Your task to perform on an android device: install app "Facebook Lite" Image 0: 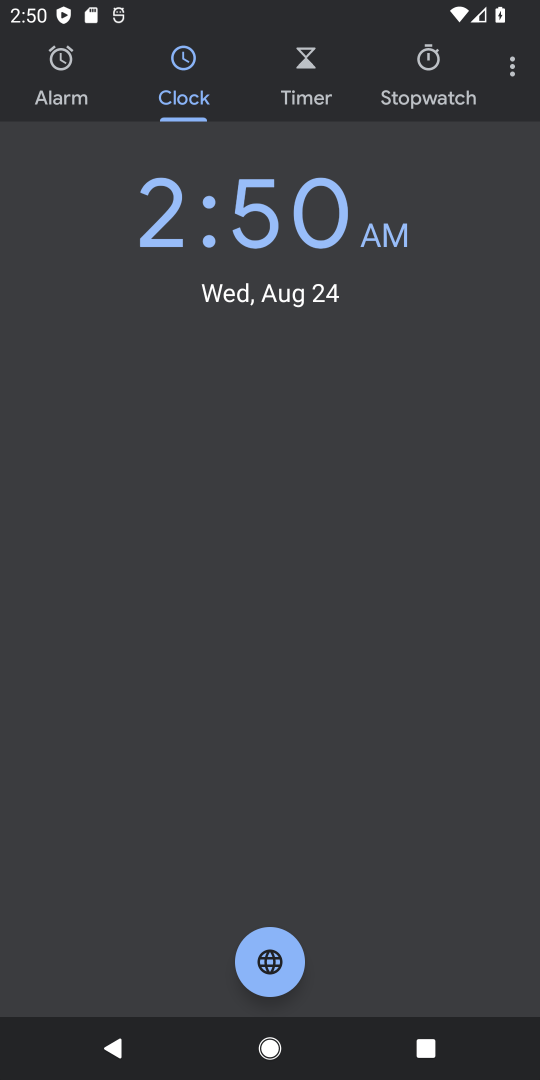
Step 0: press home button
Your task to perform on an android device: install app "Facebook Lite" Image 1: 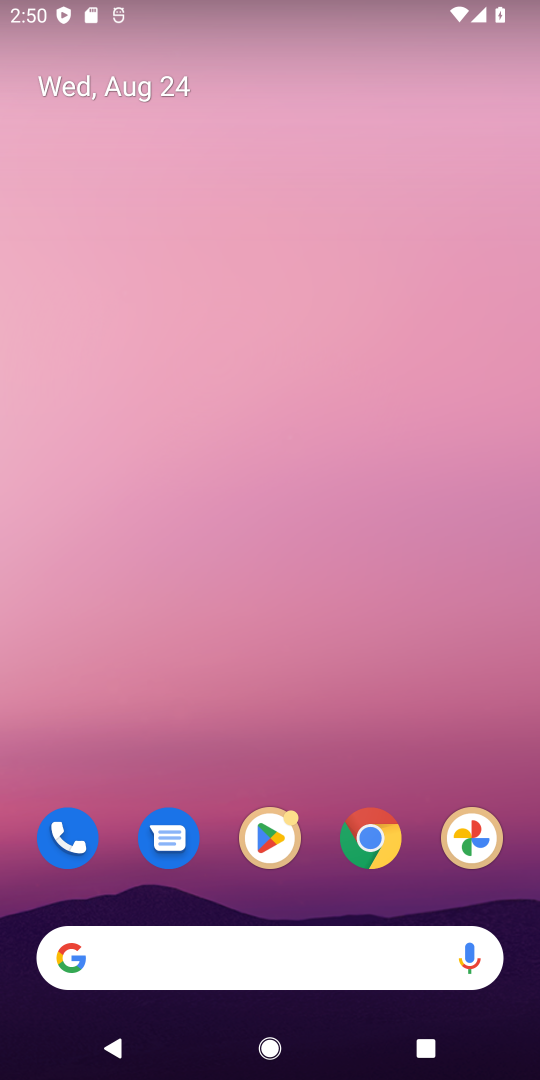
Step 1: drag from (404, 749) to (432, 66)
Your task to perform on an android device: install app "Facebook Lite" Image 2: 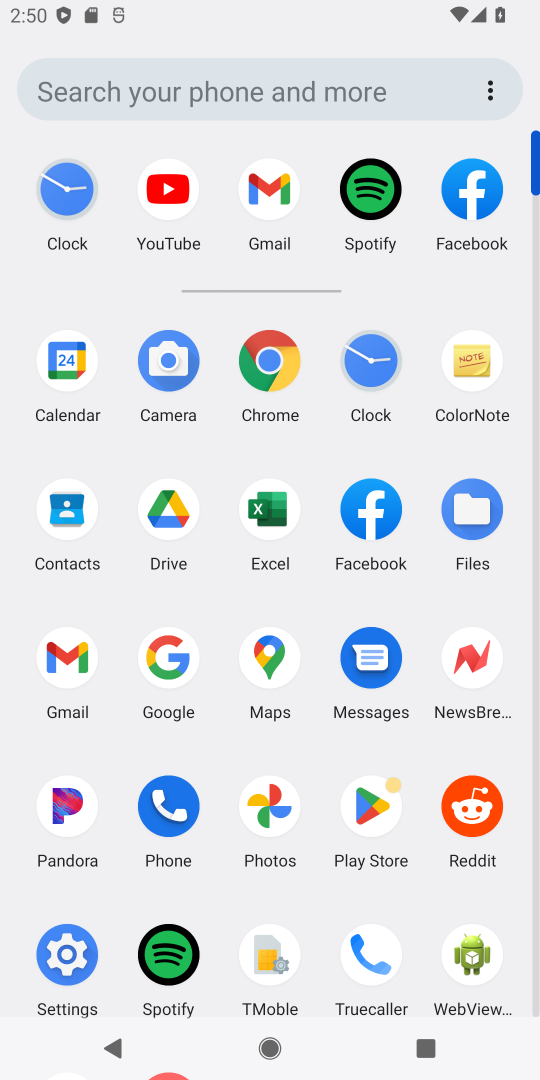
Step 2: click (369, 821)
Your task to perform on an android device: install app "Facebook Lite" Image 3: 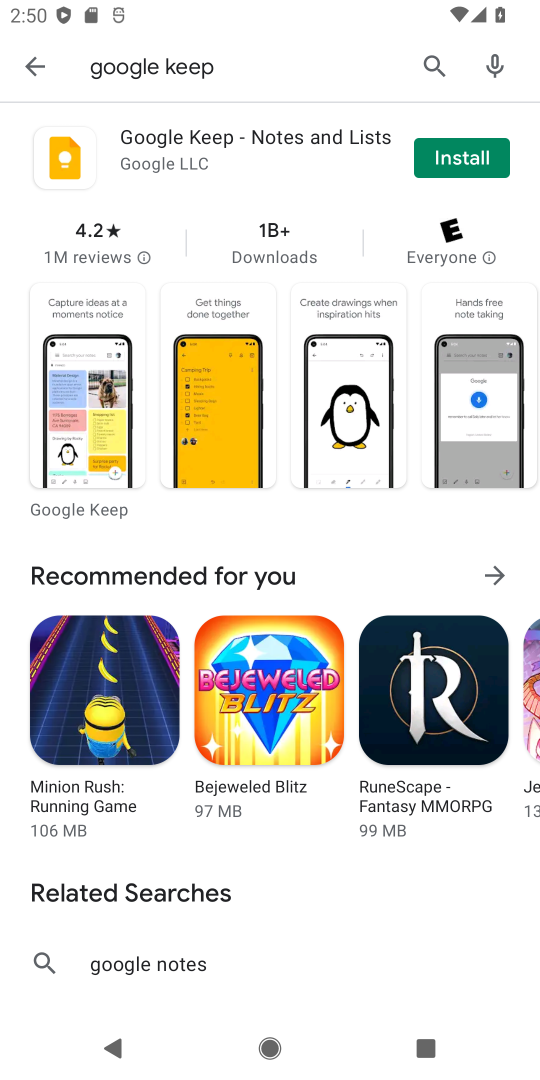
Step 3: press back button
Your task to perform on an android device: install app "Facebook Lite" Image 4: 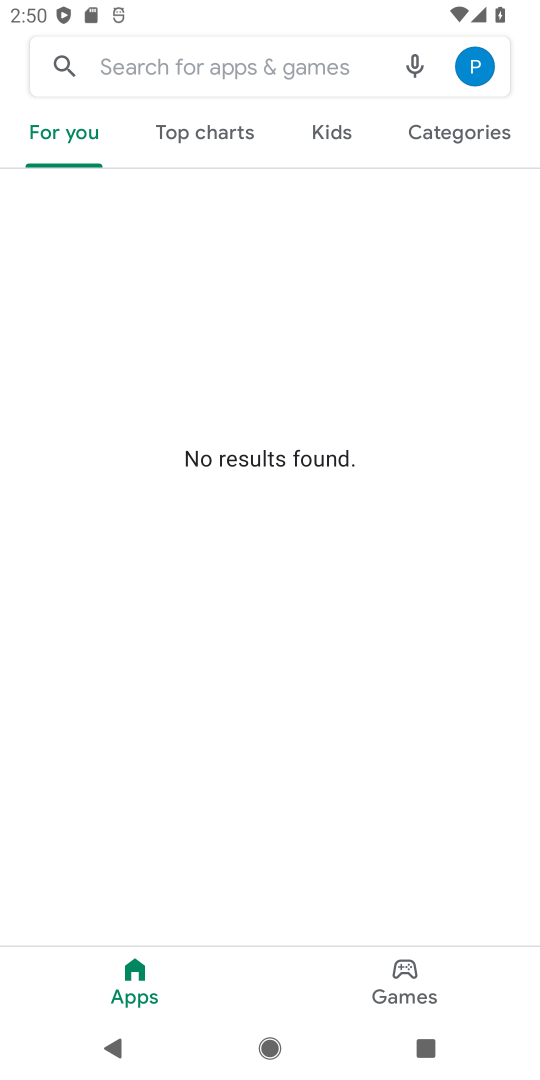
Step 4: click (290, 61)
Your task to perform on an android device: install app "Facebook Lite" Image 5: 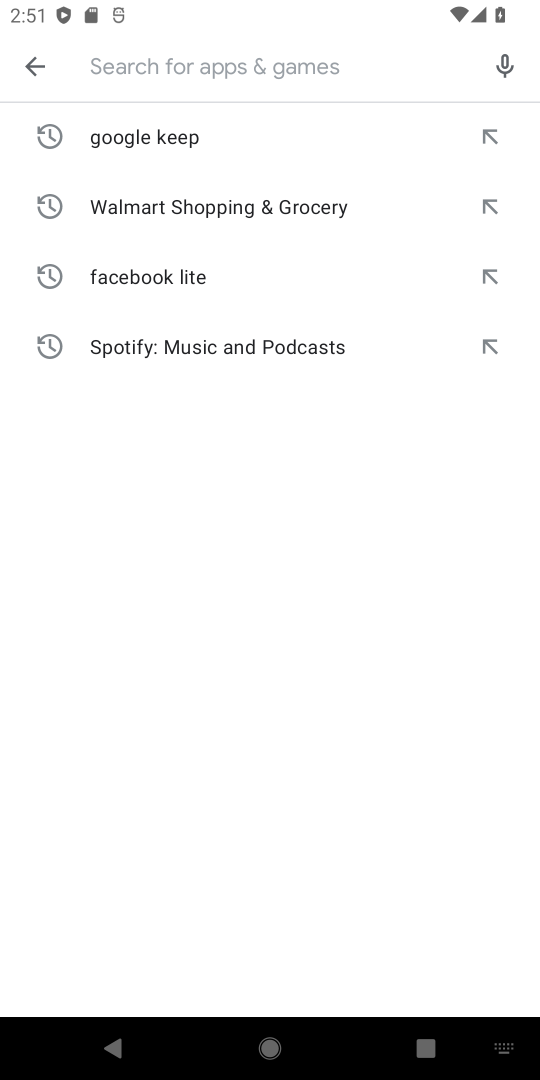
Step 5: type "facebook lite"
Your task to perform on an android device: install app "Facebook Lite" Image 6: 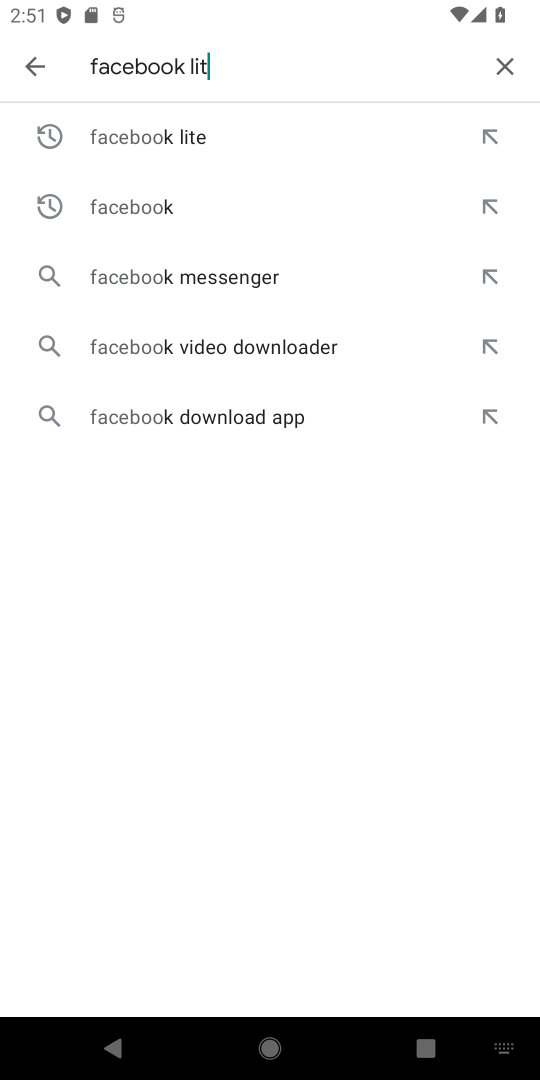
Step 6: press enter
Your task to perform on an android device: install app "Facebook Lite" Image 7: 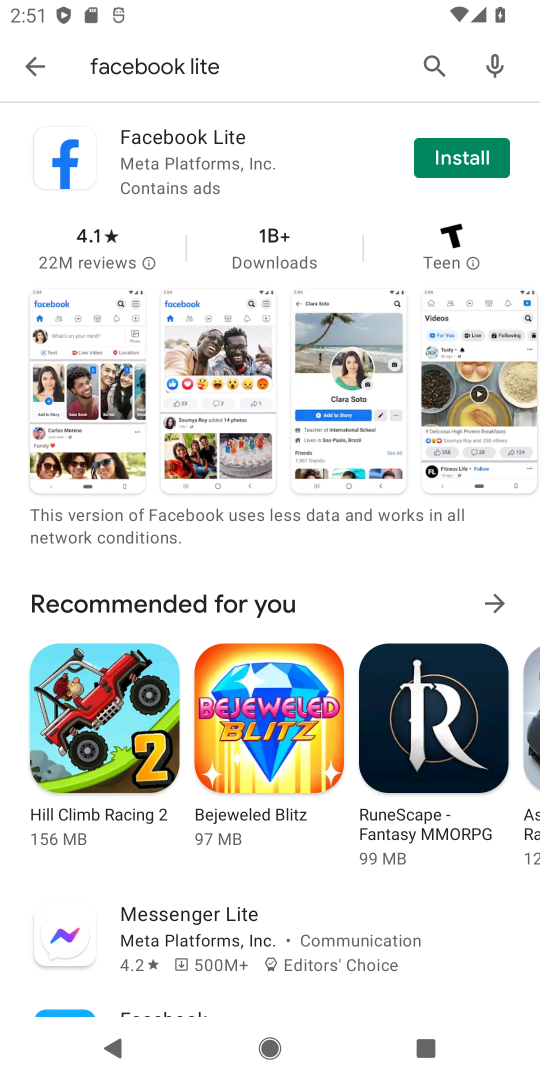
Step 7: click (463, 160)
Your task to perform on an android device: install app "Facebook Lite" Image 8: 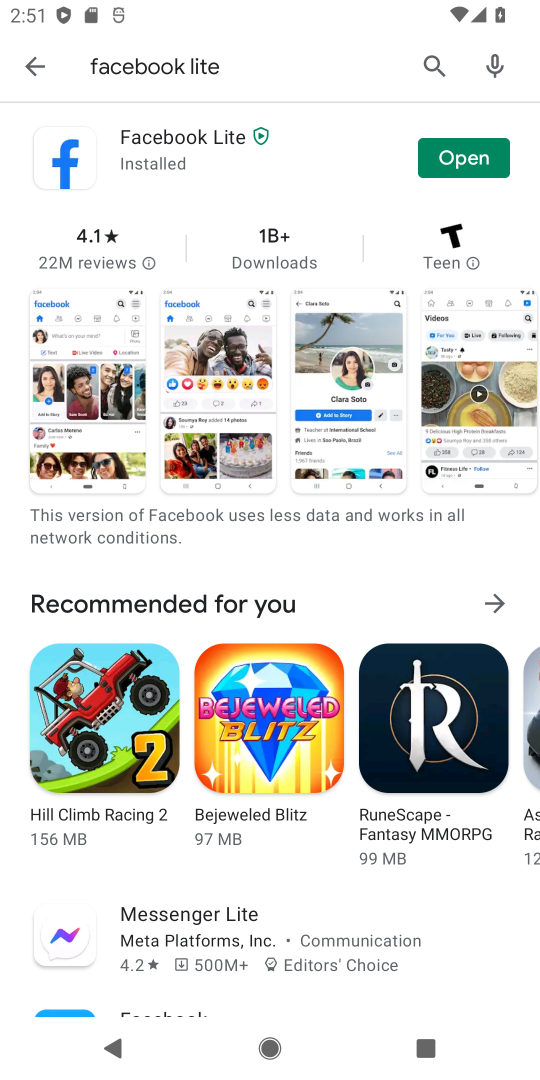
Step 8: task complete